Your task to perform on an android device: turn on showing notifications on the lock screen Image 0: 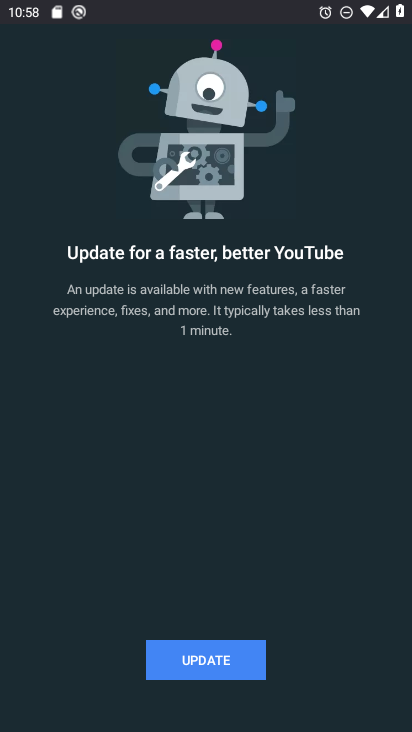
Step 0: press home button
Your task to perform on an android device: turn on showing notifications on the lock screen Image 1: 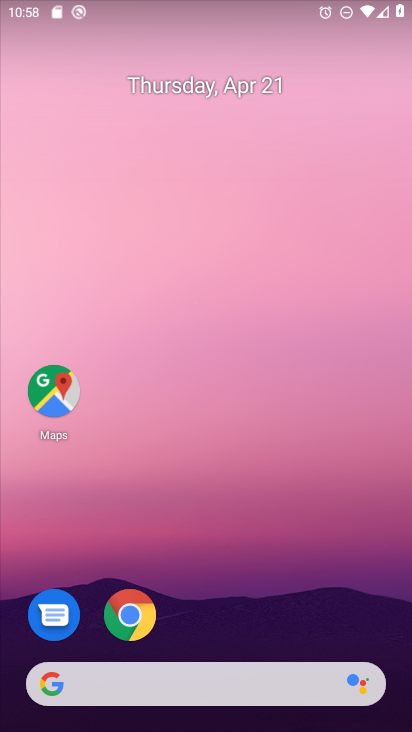
Step 1: drag from (224, 638) to (203, 70)
Your task to perform on an android device: turn on showing notifications on the lock screen Image 2: 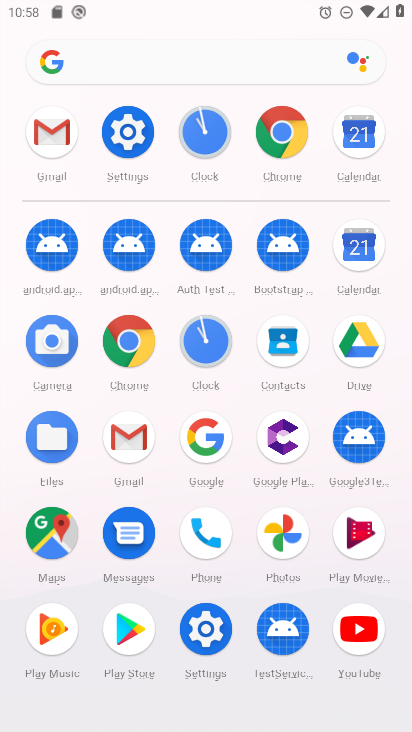
Step 2: click (125, 126)
Your task to perform on an android device: turn on showing notifications on the lock screen Image 3: 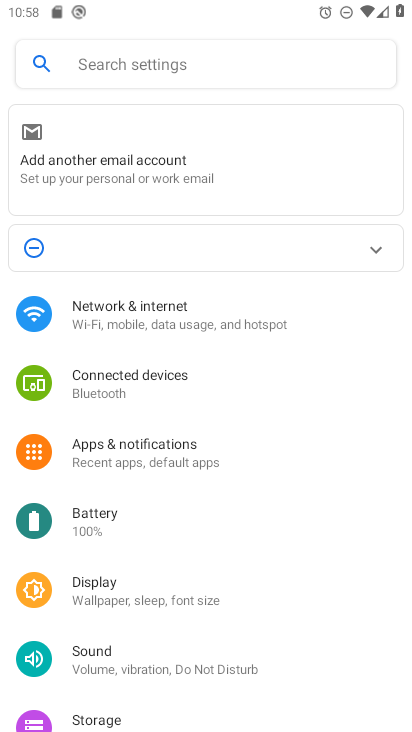
Step 3: click (170, 444)
Your task to perform on an android device: turn on showing notifications on the lock screen Image 4: 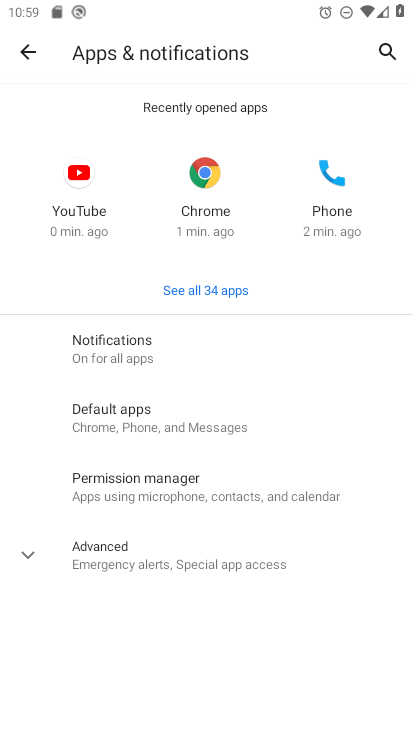
Step 4: click (156, 345)
Your task to perform on an android device: turn on showing notifications on the lock screen Image 5: 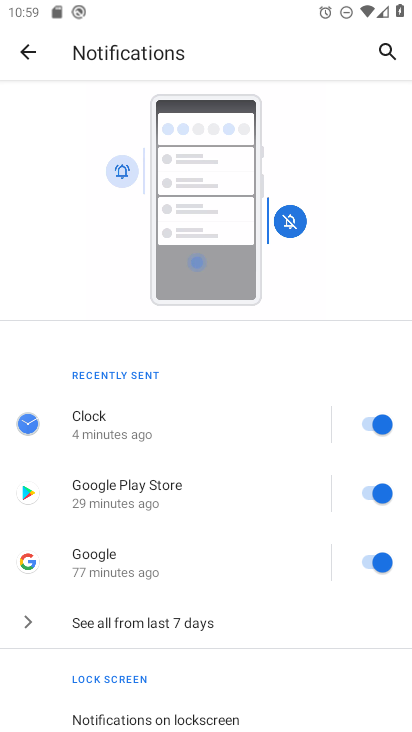
Step 5: drag from (210, 638) to (239, 352)
Your task to perform on an android device: turn on showing notifications on the lock screen Image 6: 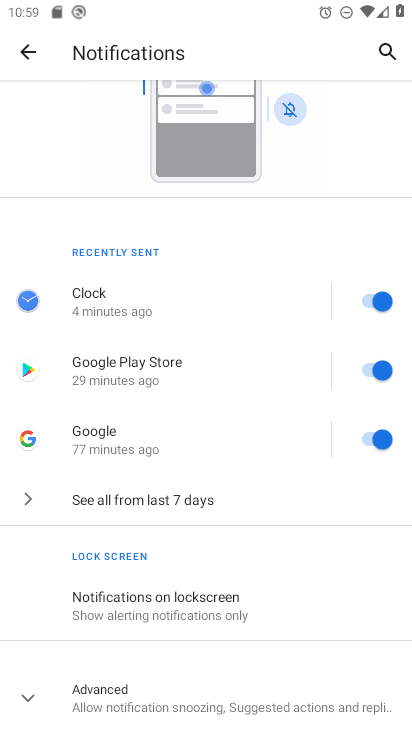
Step 6: click (225, 615)
Your task to perform on an android device: turn on showing notifications on the lock screen Image 7: 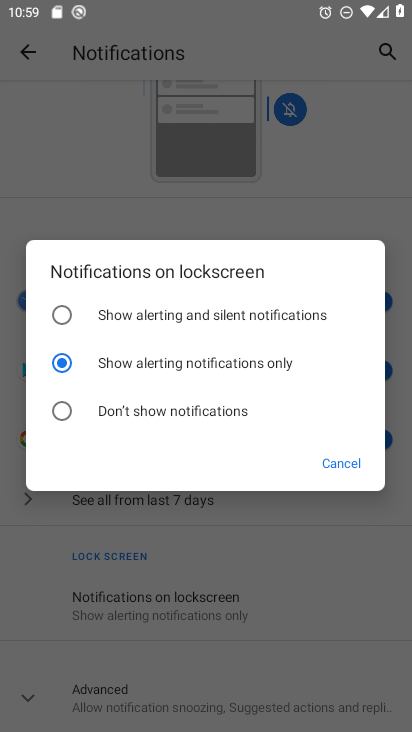
Step 7: click (63, 314)
Your task to perform on an android device: turn on showing notifications on the lock screen Image 8: 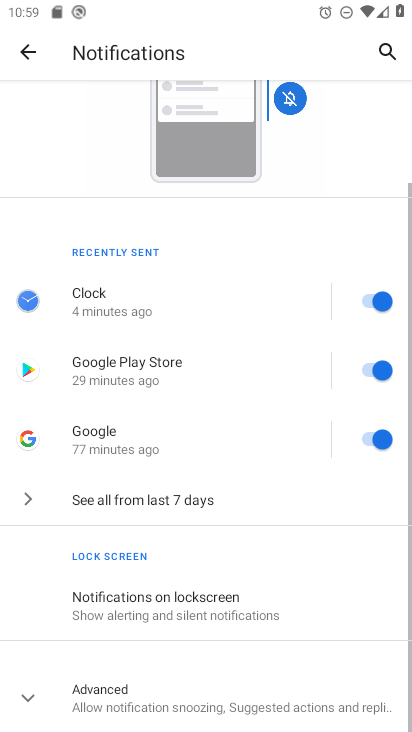
Step 8: task complete